Your task to perform on an android device: Show me popular videos on Youtube Image 0: 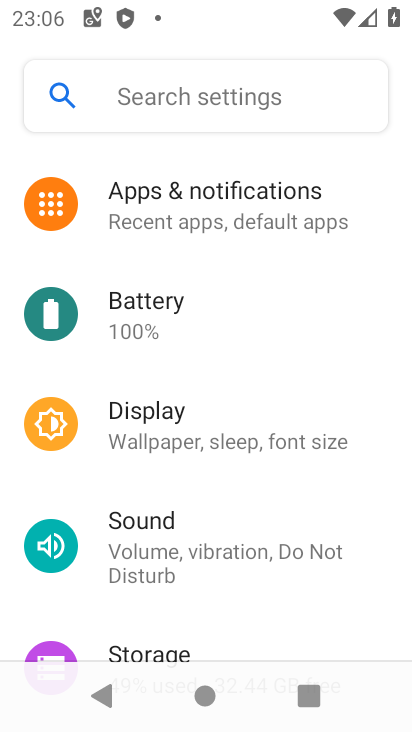
Step 0: press home button
Your task to perform on an android device: Show me popular videos on Youtube Image 1: 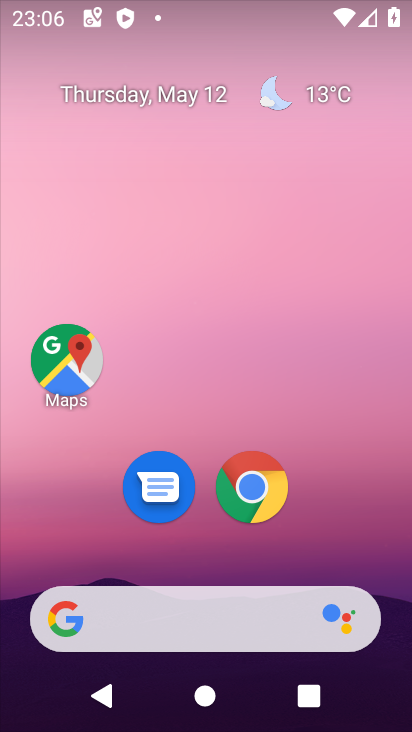
Step 1: drag from (221, 554) to (405, 29)
Your task to perform on an android device: Show me popular videos on Youtube Image 2: 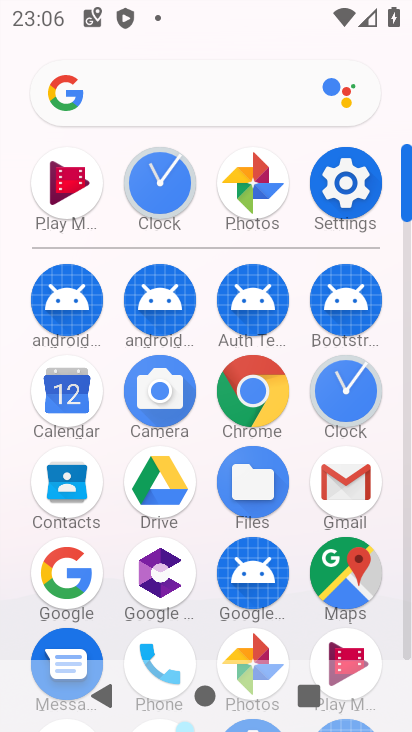
Step 2: drag from (210, 626) to (295, 172)
Your task to perform on an android device: Show me popular videos on Youtube Image 3: 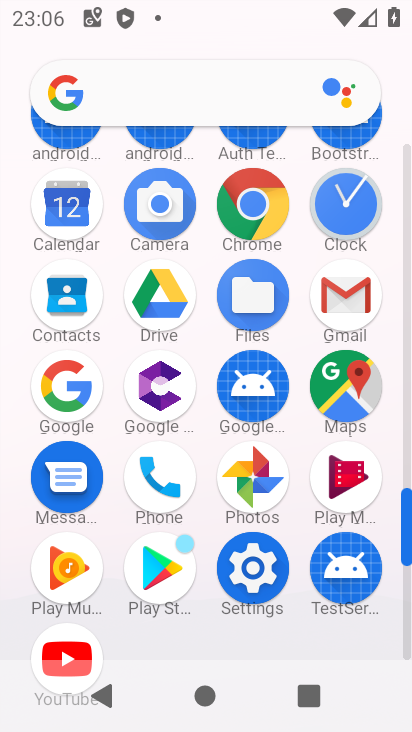
Step 3: click (64, 637)
Your task to perform on an android device: Show me popular videos on Youtube Image 4: 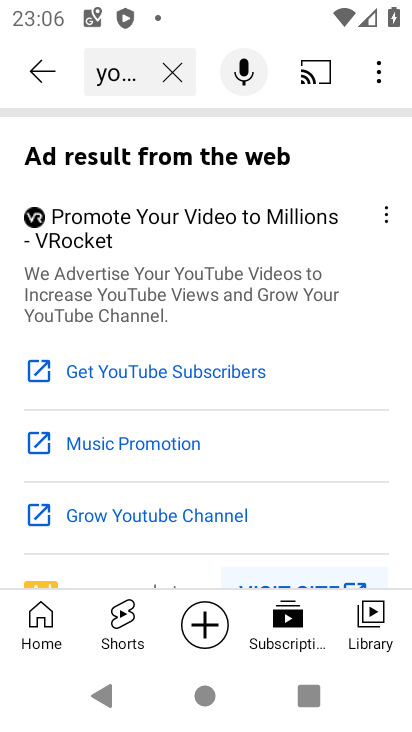
Step 4: click (64, 637)
Your task to perform on an android device: Show me popular videos on Youtube Image 5: 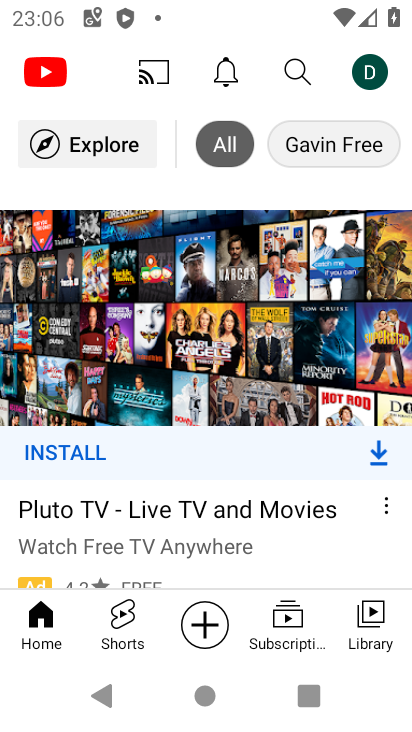
Step 5: click (96, 150)
Your task to perform on an android device: Show me popular videos on Youtube Image 6: 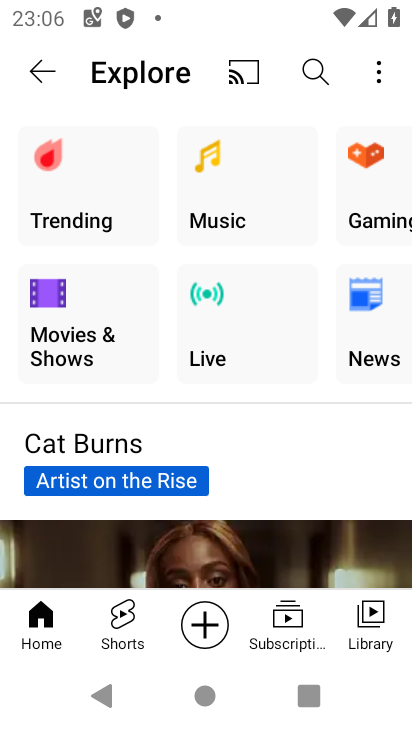
Step 6: click (96, 150)
Your task to perform on an android device: Show me popular videos on Youtube Image 7: 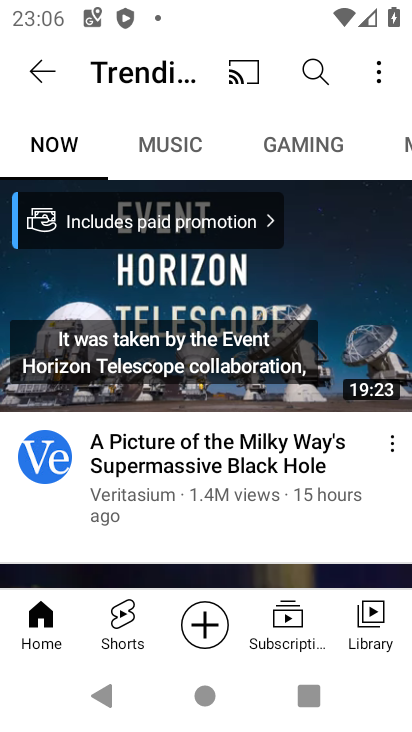
Step 7: task complete